Your task to perform on an android device: toggle data saver in the chrome app Image 0: 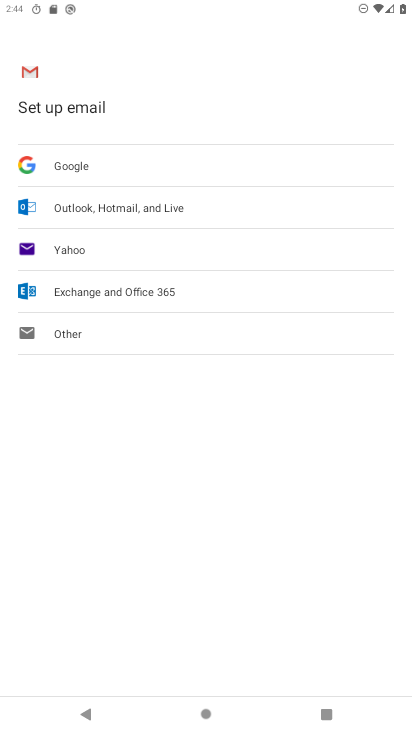
Step 0: press home button
Your task to perform on an android device: toggle data saver in the chrome app Image 1: 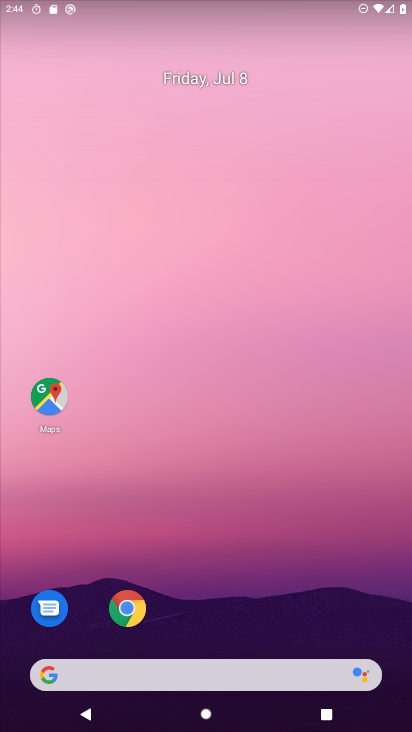
Step 1: click (131, 609)
Your task to perform on an android device: toggle data saver in the chrome app Image 2: 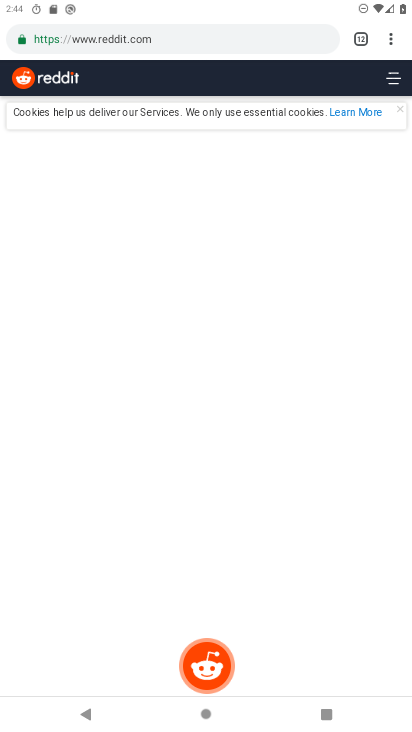
Step 2: click (390, 41)
Your task to perform on an android device: toggle data saver in the chrome app Image 3: 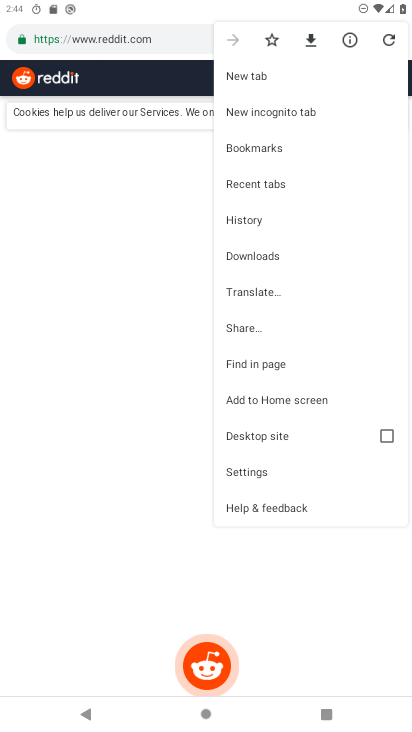
Step 3: click (246, 470)
Your task to perform on an android device: toggle data saver in the chrome app Image 4: 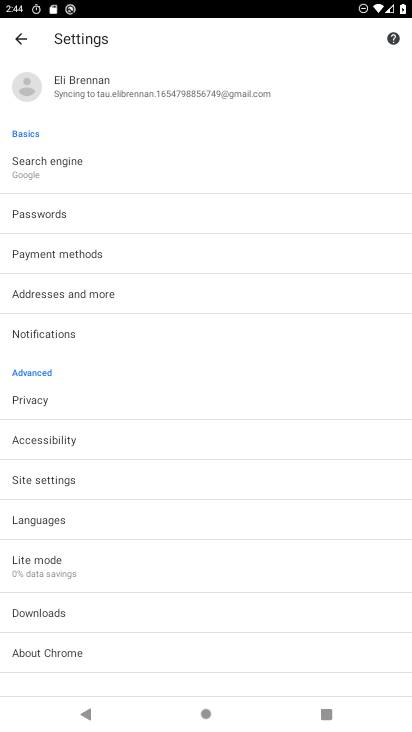
Step 4: click (46, 564)
Your task to perform on an android device: toggle data saver in the chrome app Image 5: 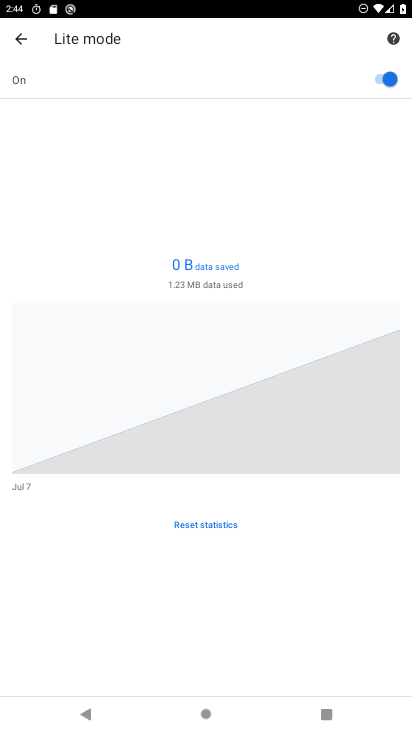
Step 5: click (384, 74)
Your task to perform on an android device: toggle data saver in the chrome app Image 6: 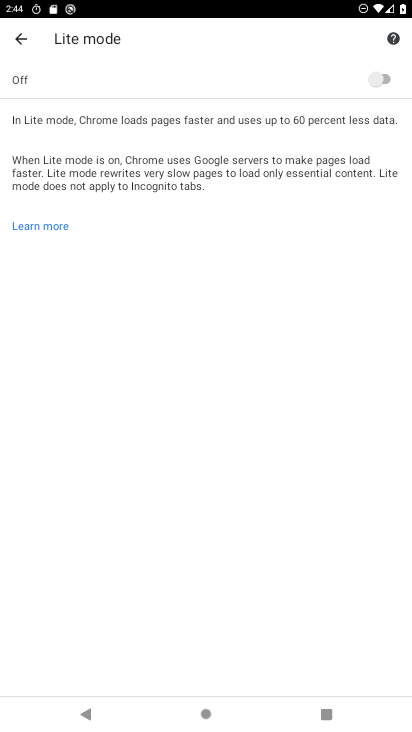
Step 6: task complete